Your task to perform on an android device: turn off location Image 0: 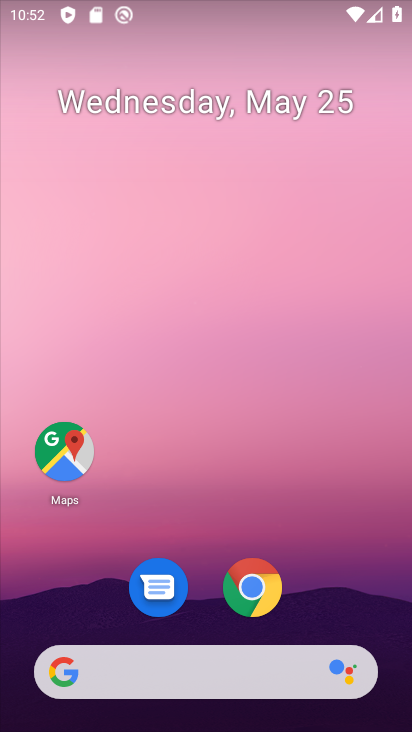
Step 0: drag from (344, 537) to (286, 31)
Your task to perform on an android device: turn off location Image 1: 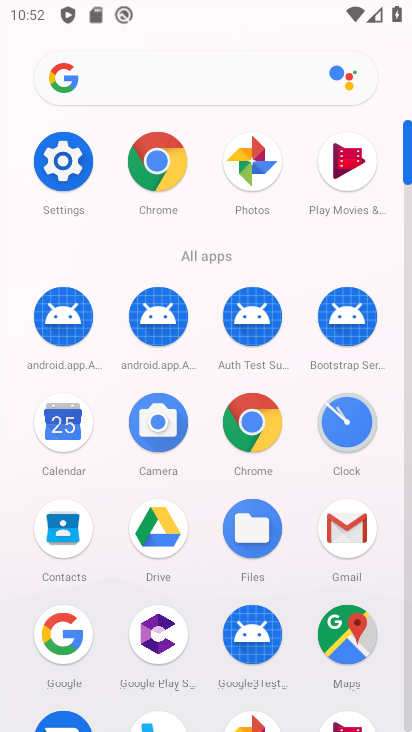
Step 1: drag from (29, 598) to (22, 268)
Your task to perform on an android device: turn off location Image 2: 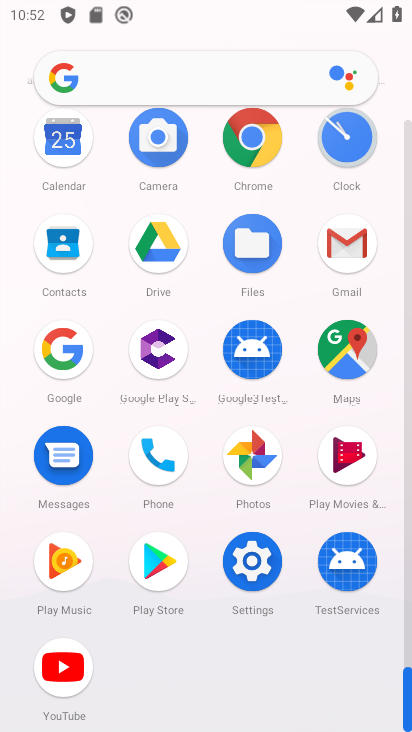
Step 2: click (251, 562)
Your task to perform on an android device: turn off location Image 3: 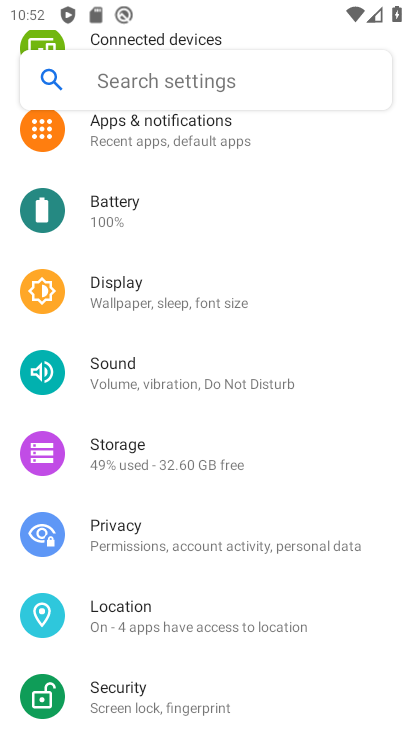
Step 3: click (147, 612)
Your task to perform on an android device: turn off location Image 4: 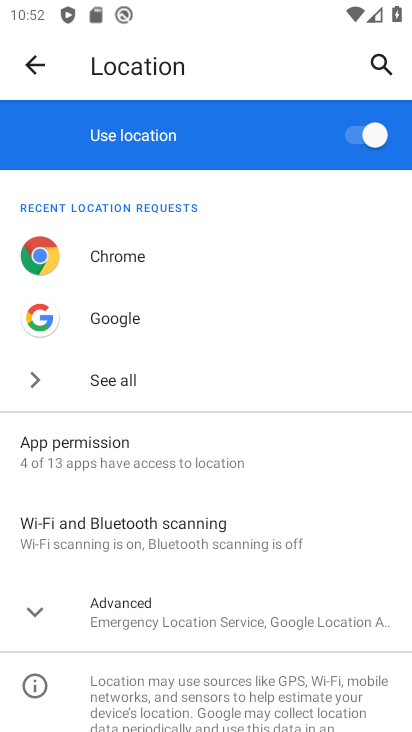
Step 4: click (368, 135)
Your task to perform on an android device: turn off location Image 5: 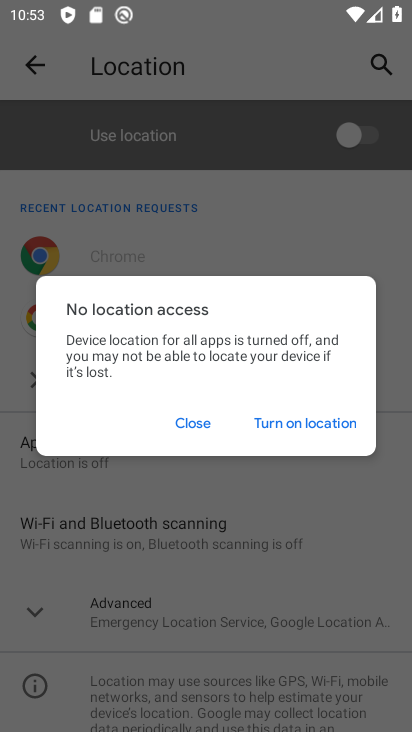
Step 5: click (199, 422)
Your task to perform on an android device: turn off location Image 6: 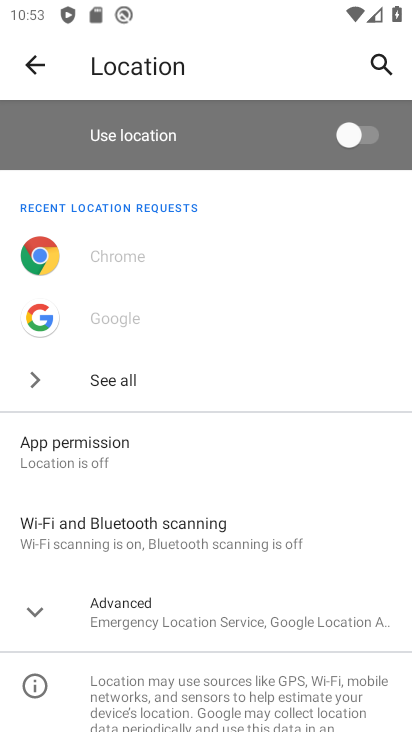
Step 6: task complete